Your task to perform on an android device: toggle location history Image 0: 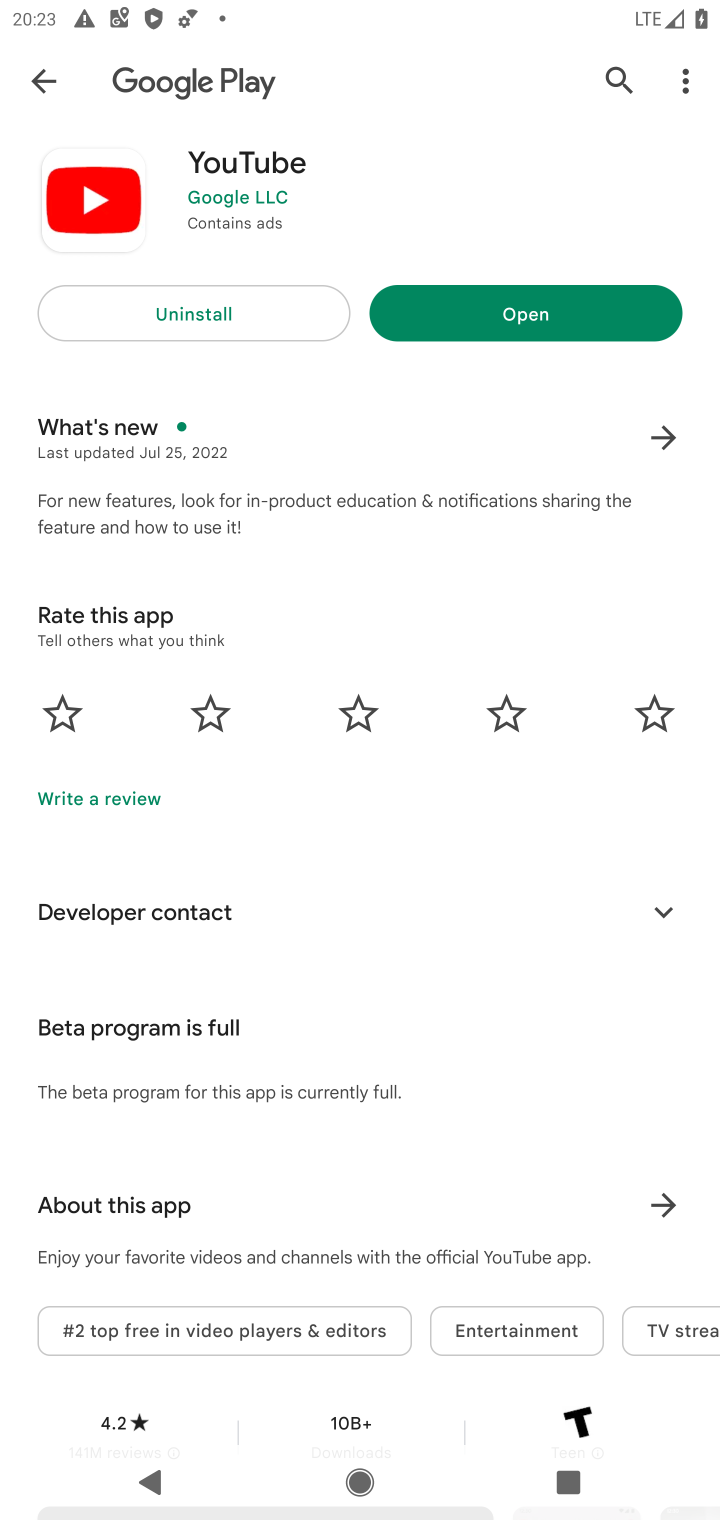
Step 0: press home button
Your task to perform on an android device: toggle location history Image 1: 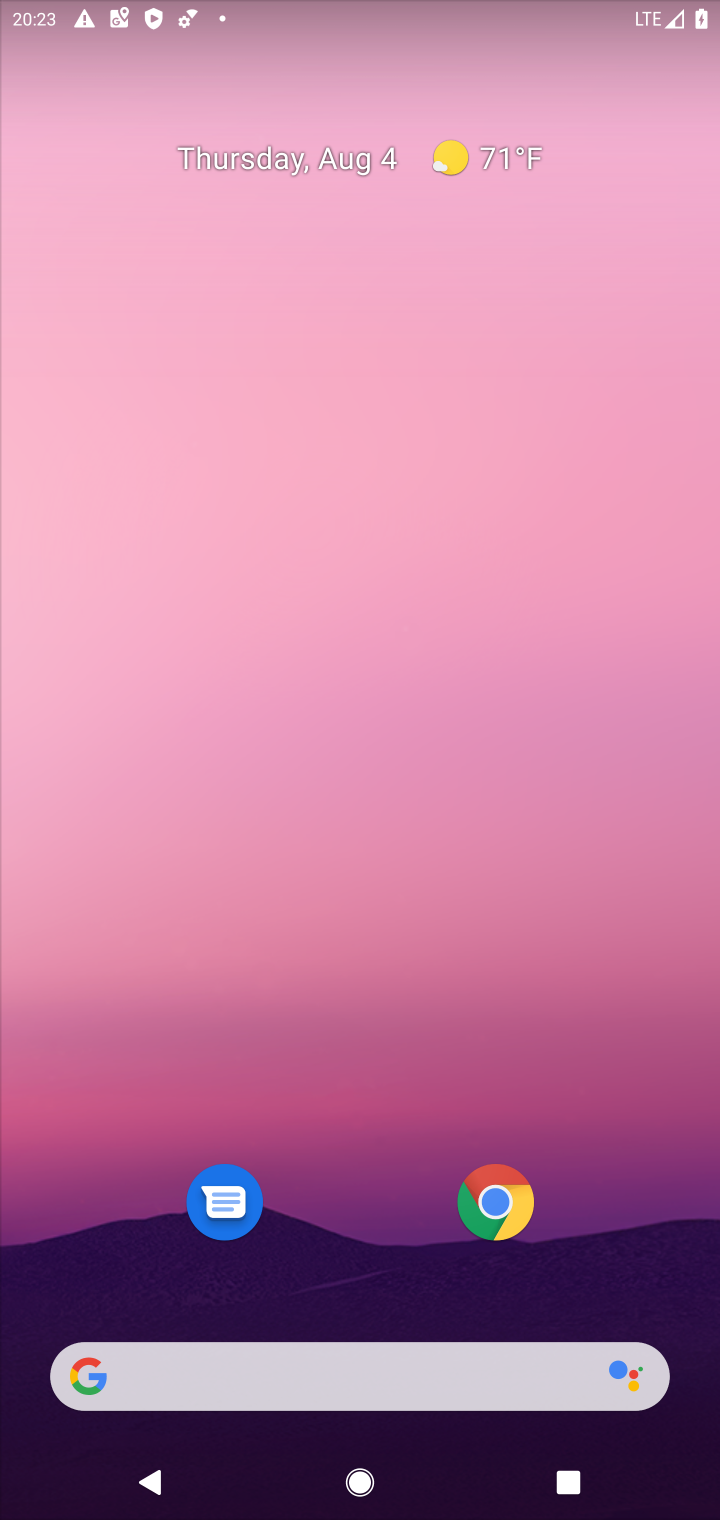
Step 1: drag from (344, 1323) to (356, 414)
Your task to perform on an android device: toggle location history Image 2: 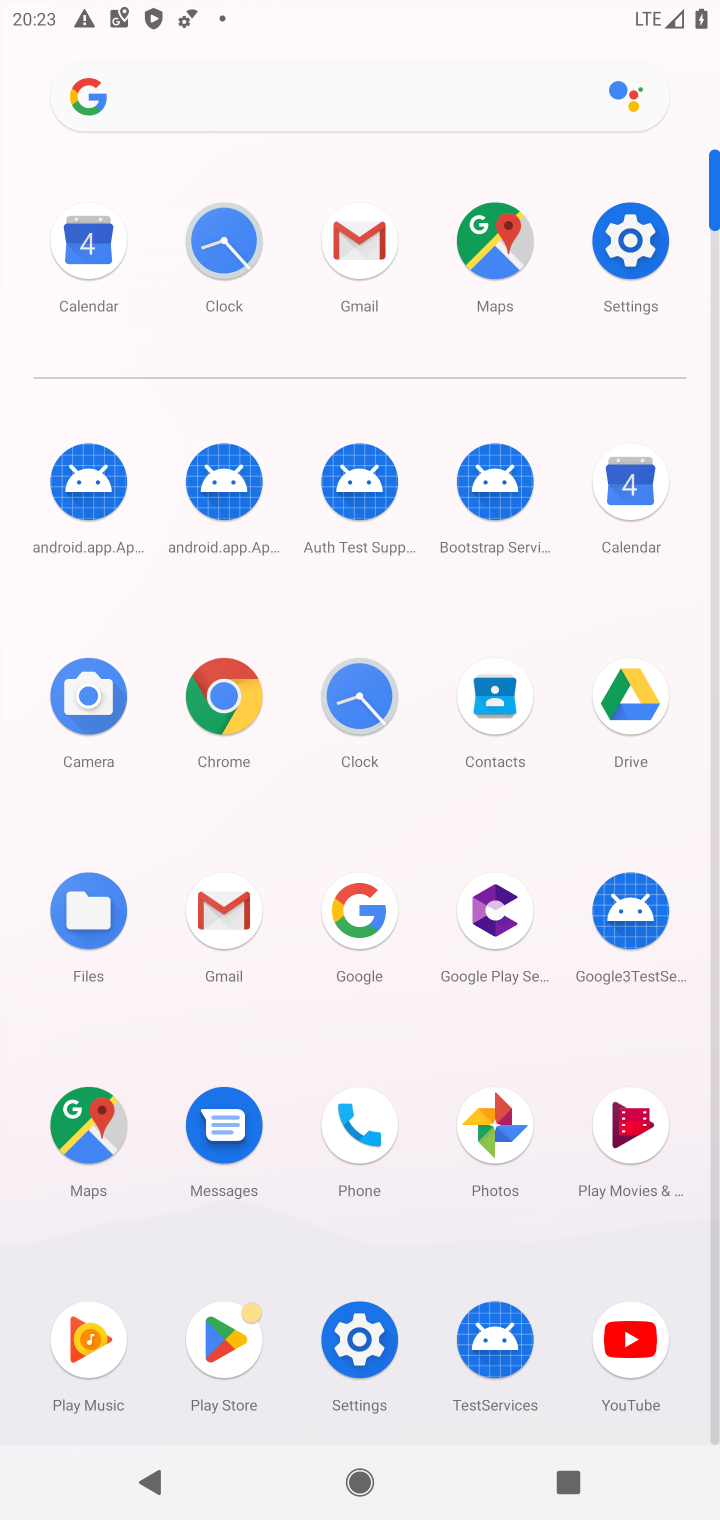
Step 2: click (601, 237)
Your task to perform on an android device: toggle location history Image 3: 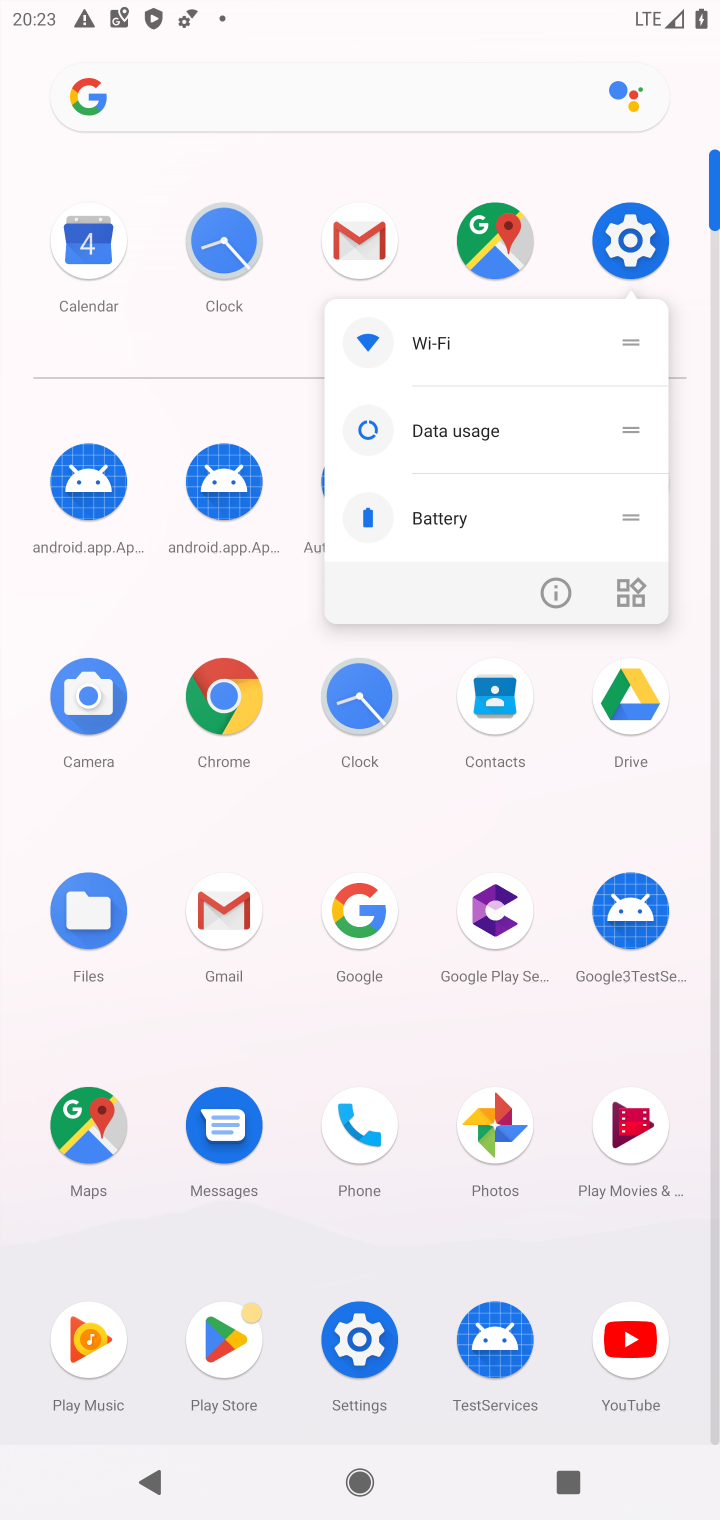
Step 3: click (644, 223)
Your task to perform on an android device: toggle location history Image 4: 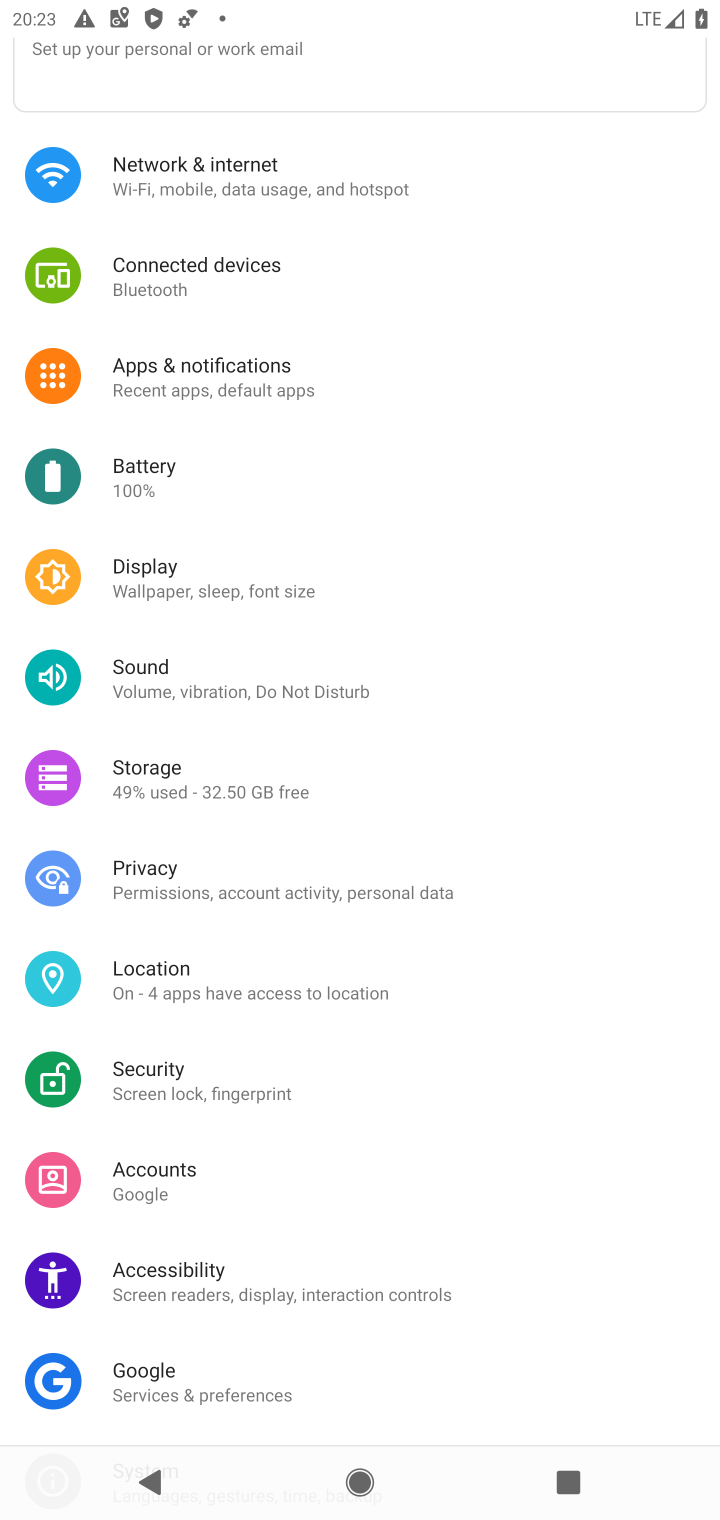
Step 4: click (255, 958)
Your task to perform on an android device: toggle location history Image 5: 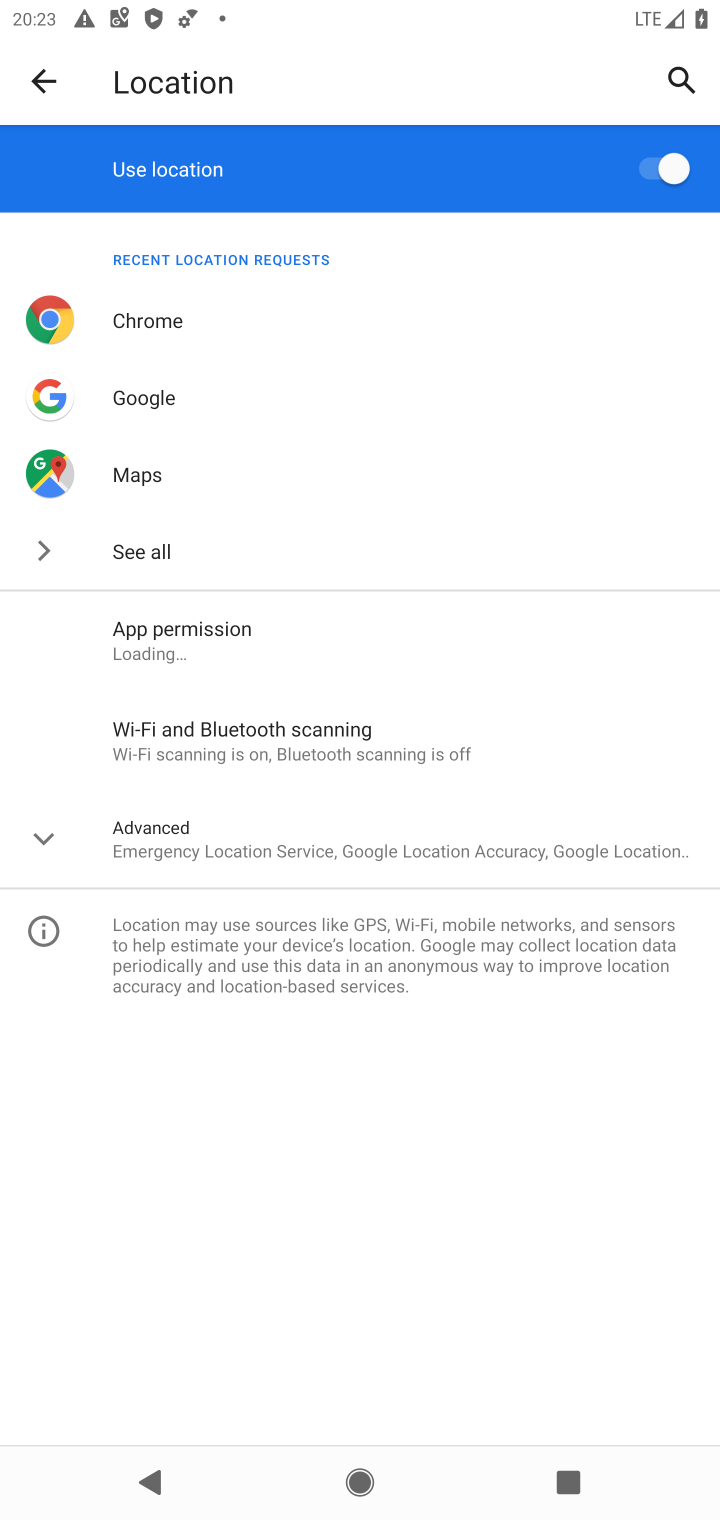
Step 5: click (249, 846)
Your task to perform on an android device: toggle location history Image 6: 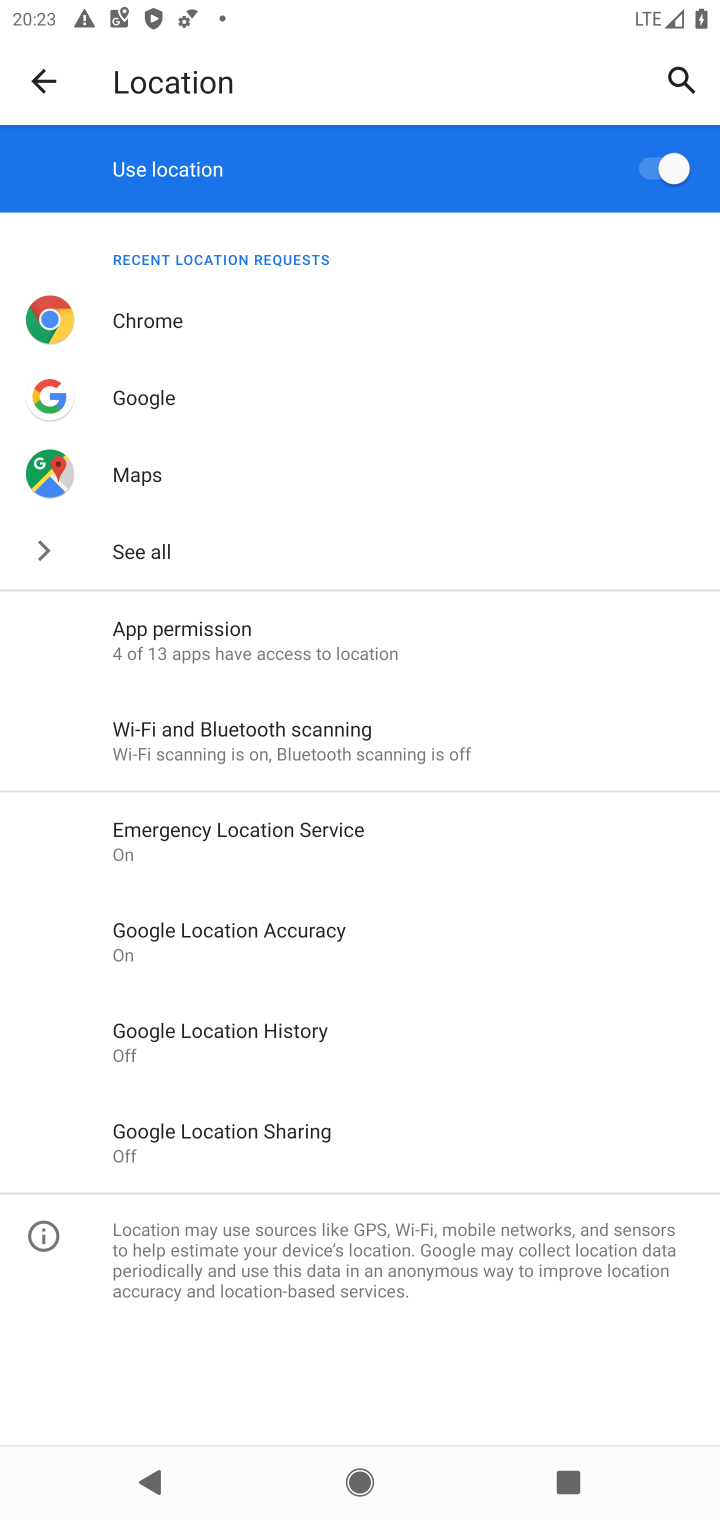
Step 6: click (347, 1045)
Your task to perform on an android device: toggle location history Image 7: 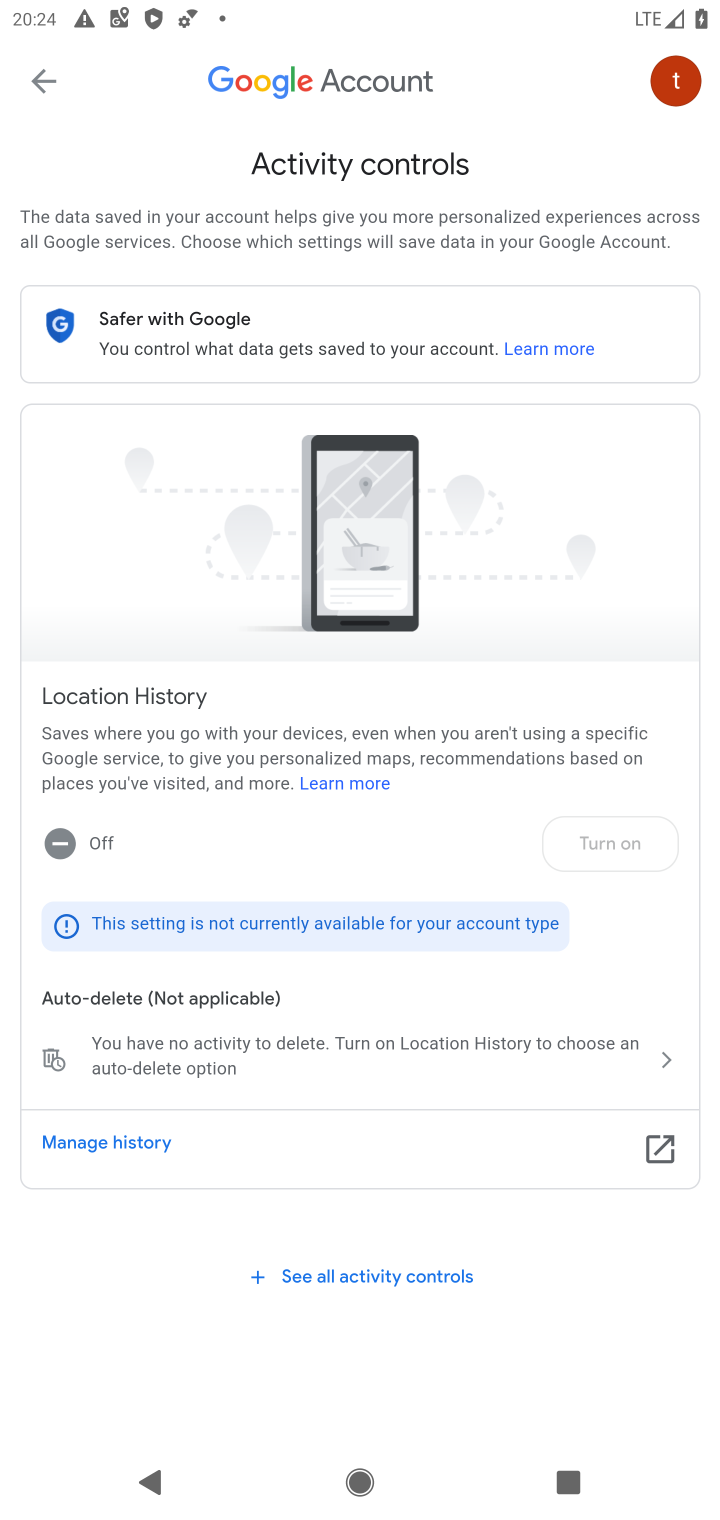
Step 7: task complete